Your task to perform on an android device: Go to accessibility settings Image 0: 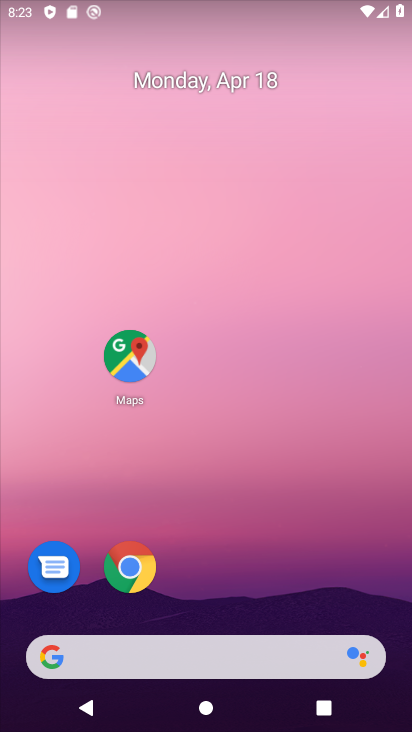
Step 0: click (346, 230)
Your task to perform on an android device: Go to accessibility settings Image 1: 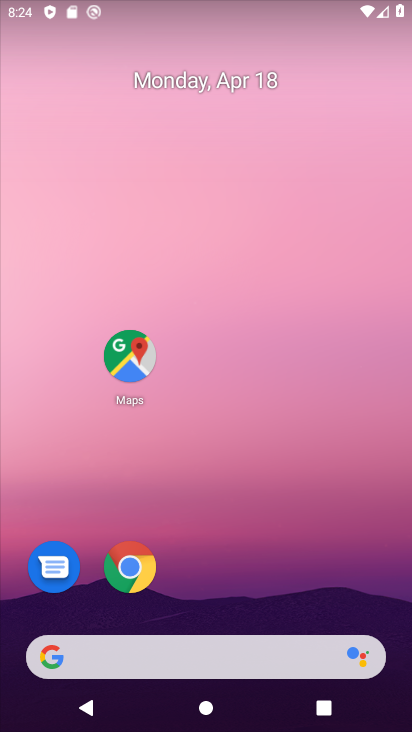
Step 1: drag from (185, 671) to (337, 185)
Your task to perform on an android device: Go to accessibility settings Image 2: 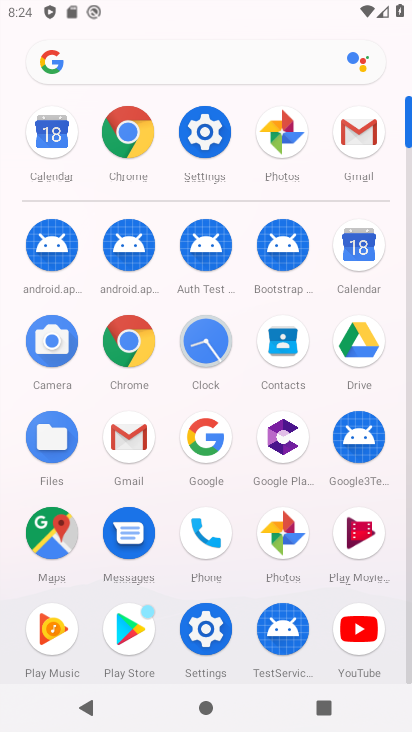
Step 2: click (206, 126)
Your task to perform on an android device: Go to accessibility settings Image 3: 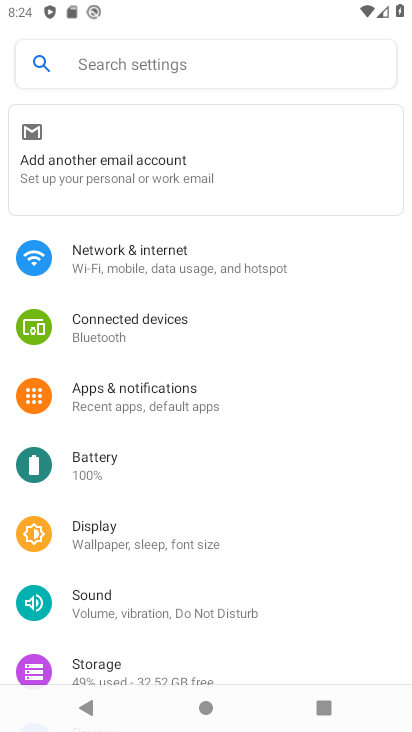
Step 3: drag from (191, 538) to (196, 585)
Your task to perform on an android device: Go to accessibility settings Image 4: 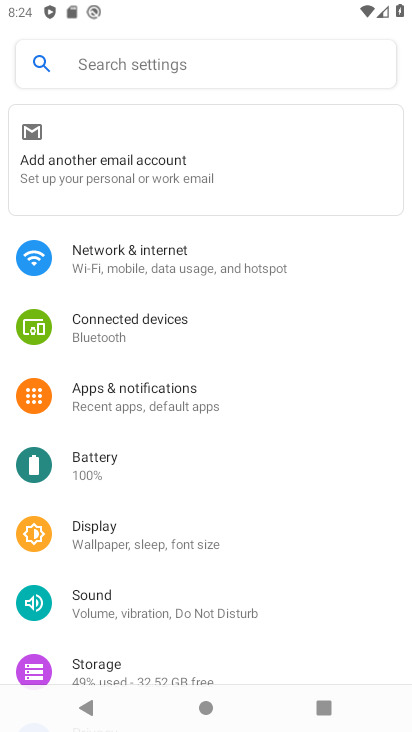
Step 4: click (109, 69)
Your task to perform on an android device: Go to accessibility settings Image 5: 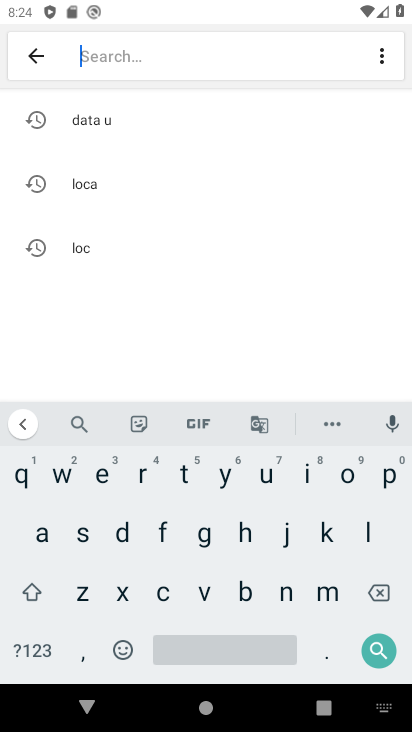
Step 5: click (46, 520)
Your task to perform on an android device: Go to accessibility settings Image 6: 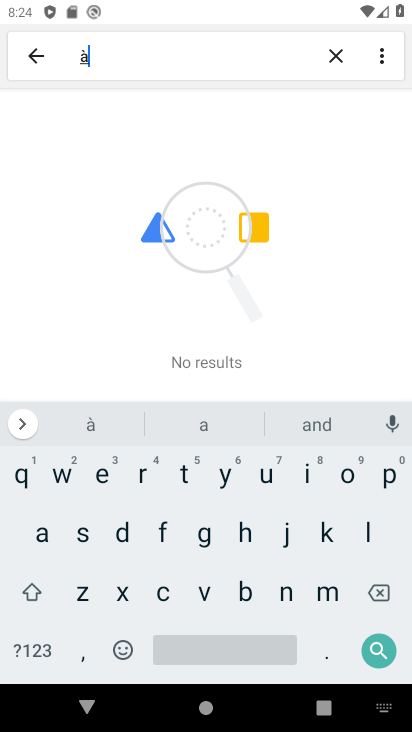
Step 6: click (331, 63)
Your task to perform on an android device: Go to accessibility settings Image 7: 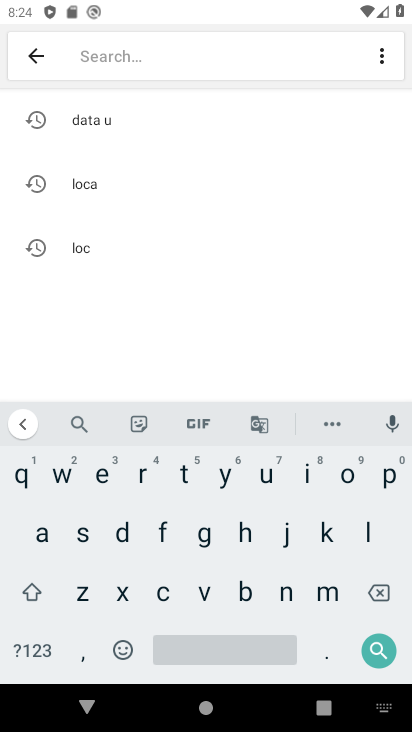
Step 7: click (39, 525)
Your task to perform on an android device: Go to accessibility settings Image 8: 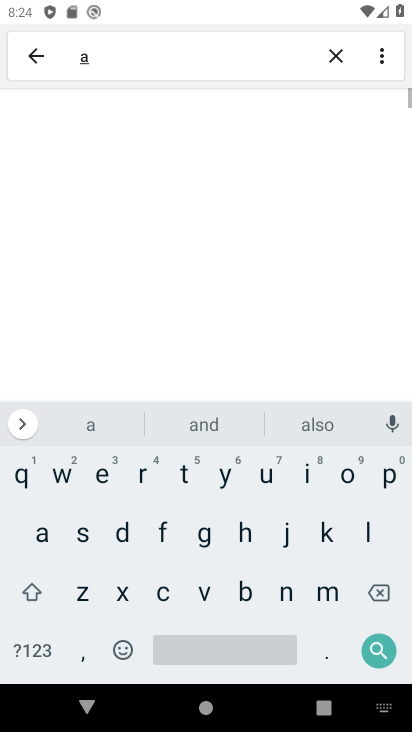
Step 8: click (81, 530)
Your task to perform on an android device: Go to accessibility settings Image 9: 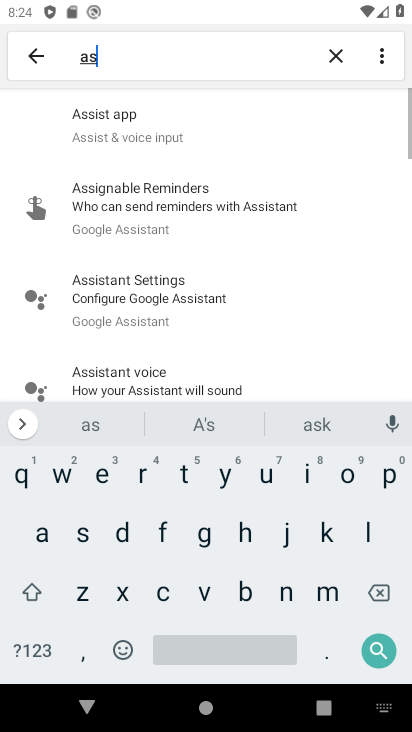
Step 9: click (381, 587)
Your task to perform on an android device: Go to accessibility settings Image 10: 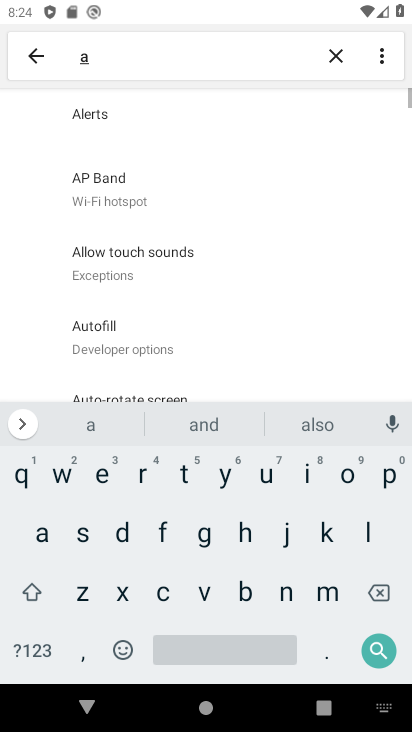
Step 10: click (156, 595)
Your task to perform on an android device: Go to accessibility settings Image 11: 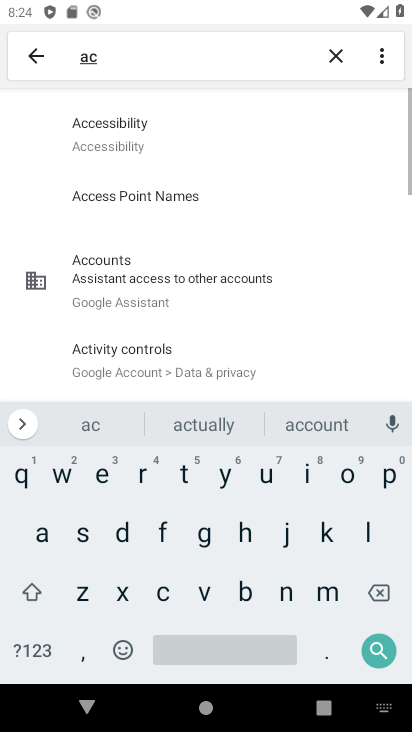
Step 11: click (156, 595)
Your task to perform on an android device: Go to accessibility settings Image 12: 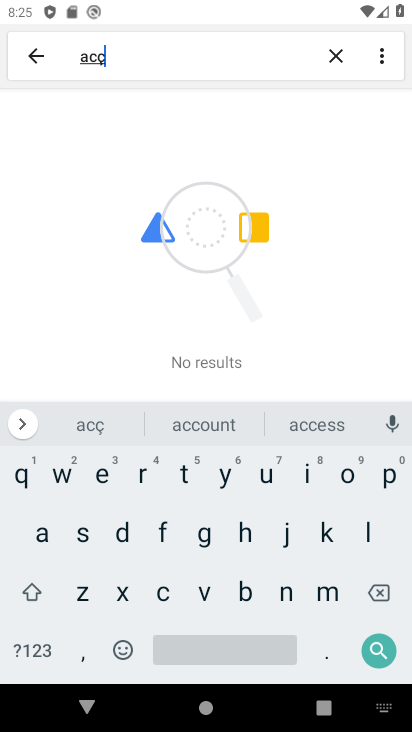
Step 12: click (105, 472)
Your task to perform on an android device: Go to accessibility settings Image 13: 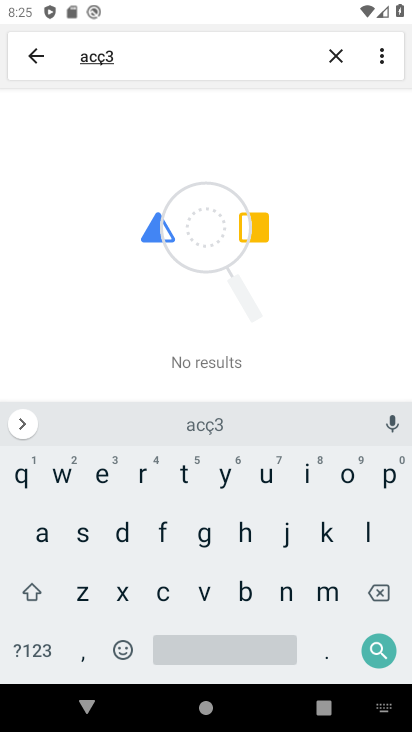
Step 13: click (382, 589)
Your task to perform on an android device: Go to accessibility settings Image 14: 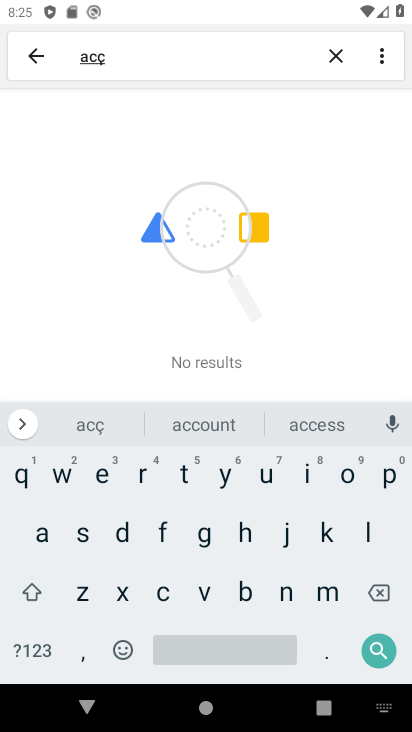
Step 14: click (382, 590)
Your task to perform on an android device: Go to accessibility settings Image 15: 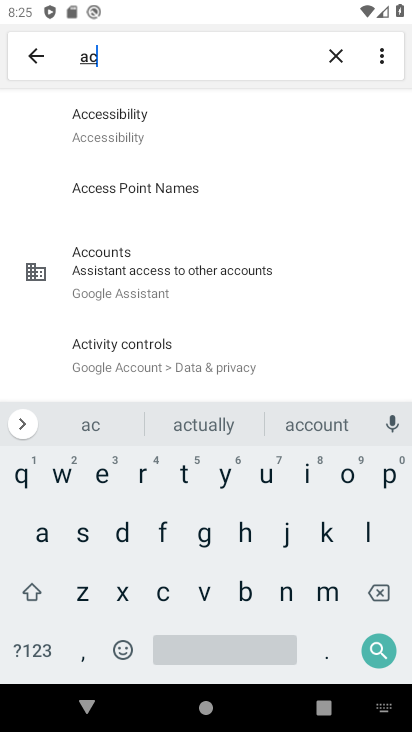
Step 15: click (176, 140)
Your task to perform on an android device: Go to accessibility settings Image 16: 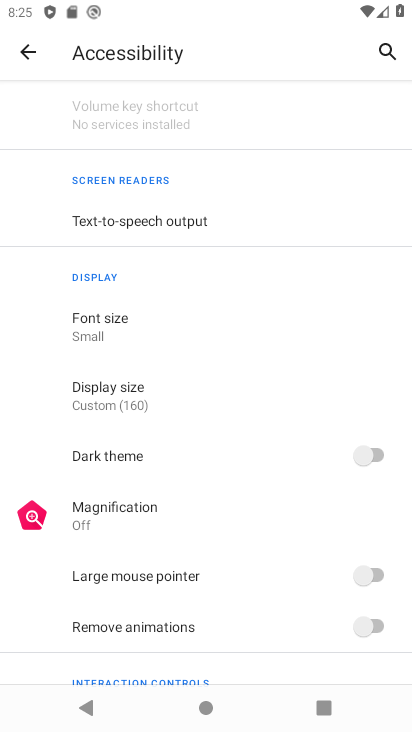
Step 16: task complete